Your task to perform on an android device: toggle notifications settings in the gmail app Image 0: 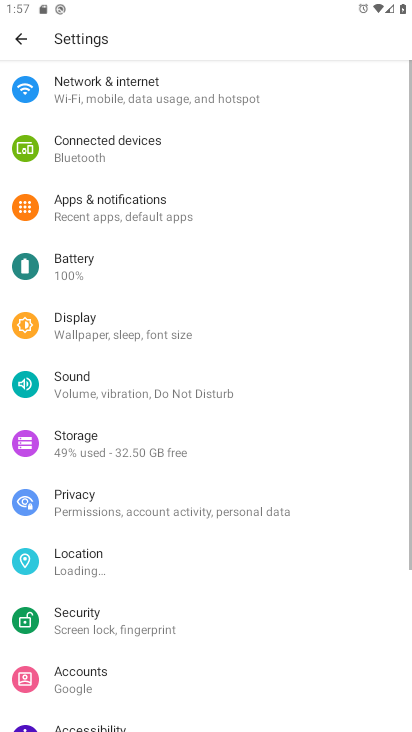
Step 0: press home button
Your task to perform on an android device: toggle notifications settings in the gmail app Image 1: 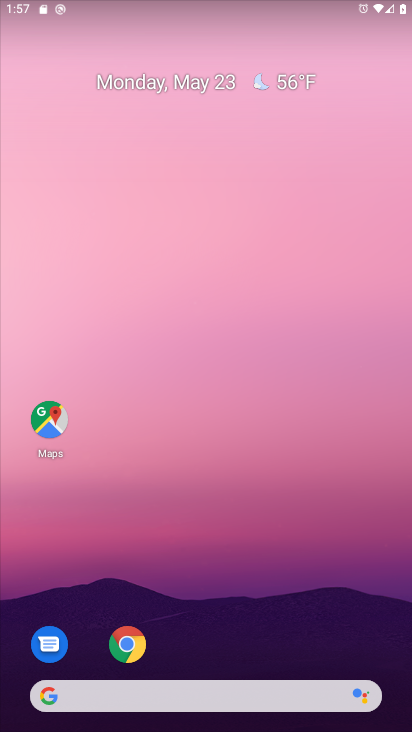
Step 1: drag from (215, 661) to (185, 226)
Your task to perform on an android device: toggle notifications settings in the gmail app Image 2: 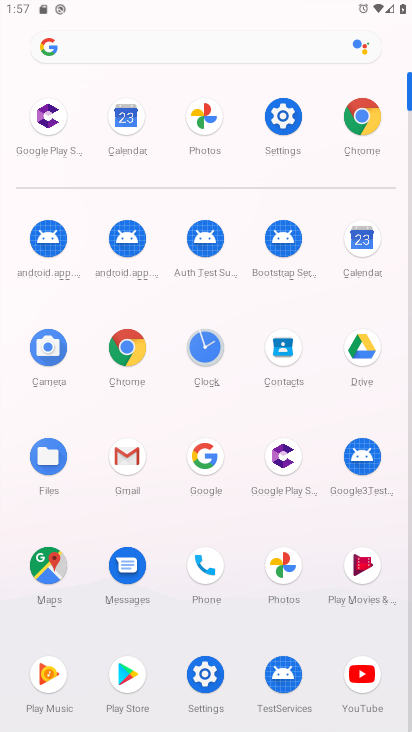
Step 2: click (277, 107)
Your task to perform on an android device: toggle notifications settings in the gmail app Image 3: 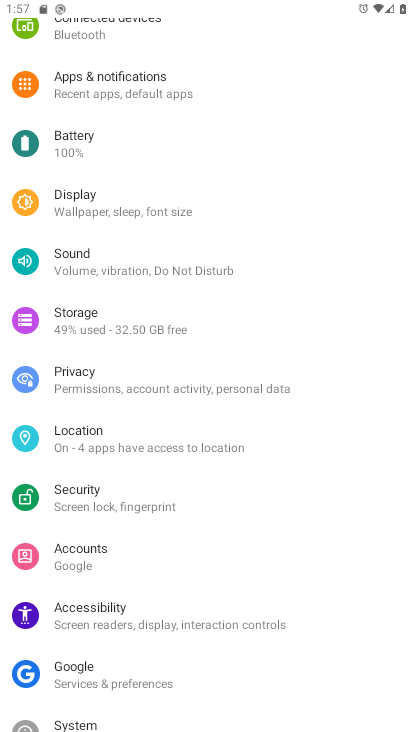
Step 3: click (113, 96)
Your task to perform on an android device: toggle notifications settings in the gmail app Image 4: 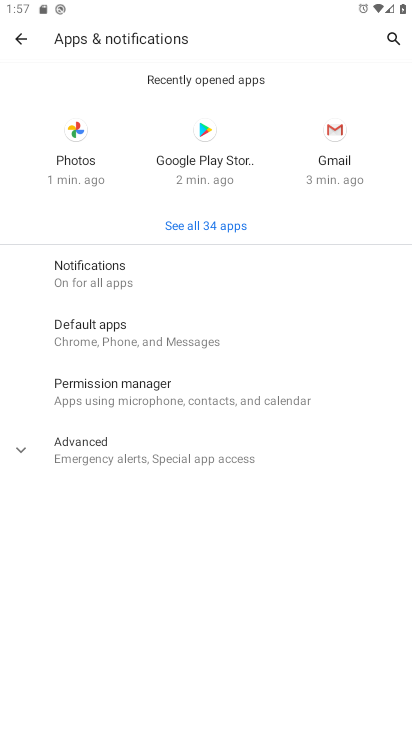
Step 4: click (103, 282)
Your task to perform on an android device: toggle notifications settings in the gmail app Image 5: 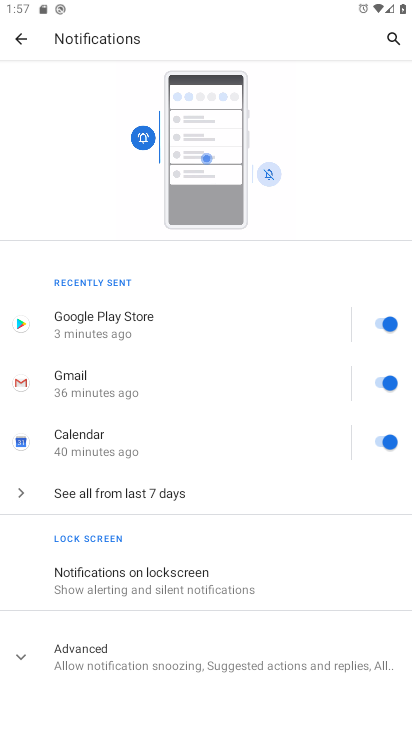
Step 5: click (174, 594)
Your task to perform on an android device: toggle notifications settings in the gmail app Image 6: 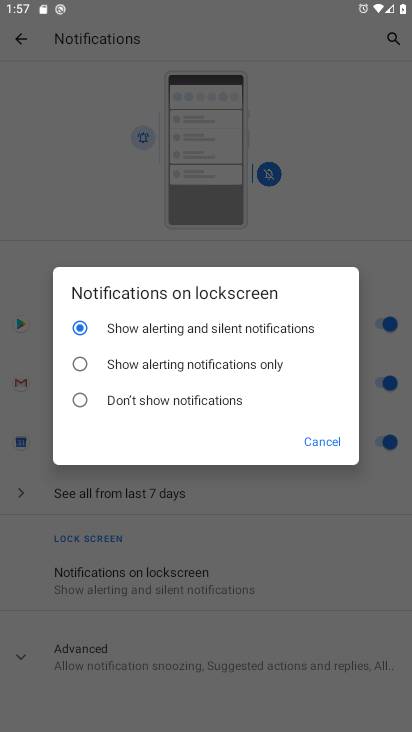
Step 6: click (88, 391)
Your task to perform on an android device: toggle notifications settings in the gmail app Image 7: 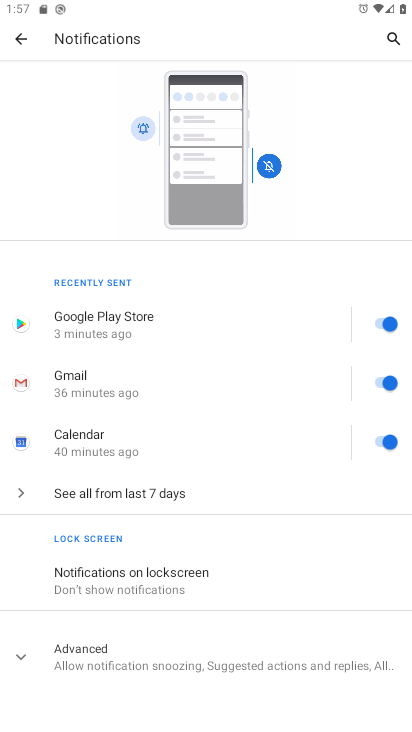
Step 7: task complete